Your task to perform on an android device: Show the shopping cart on newegg.com. Add "razer huntsman" to the cart on newegg.com Image 0: 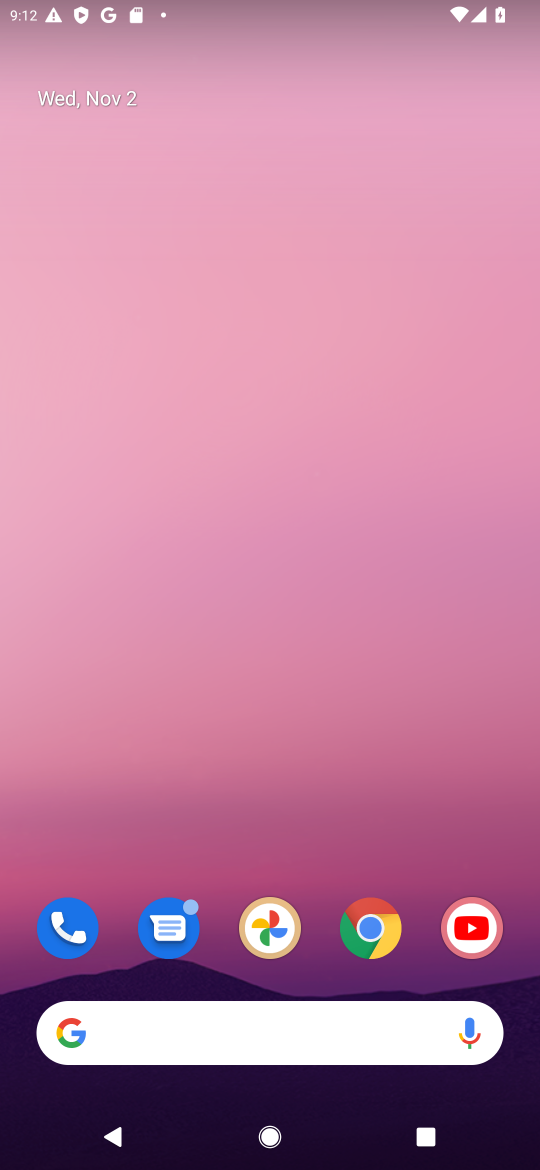
Step 0: click (373, 950)
Your task to perform on an android device: Show the shopping cart on newegg.com. Add "razer huntsman" to the cart on newegg.com Image 1: 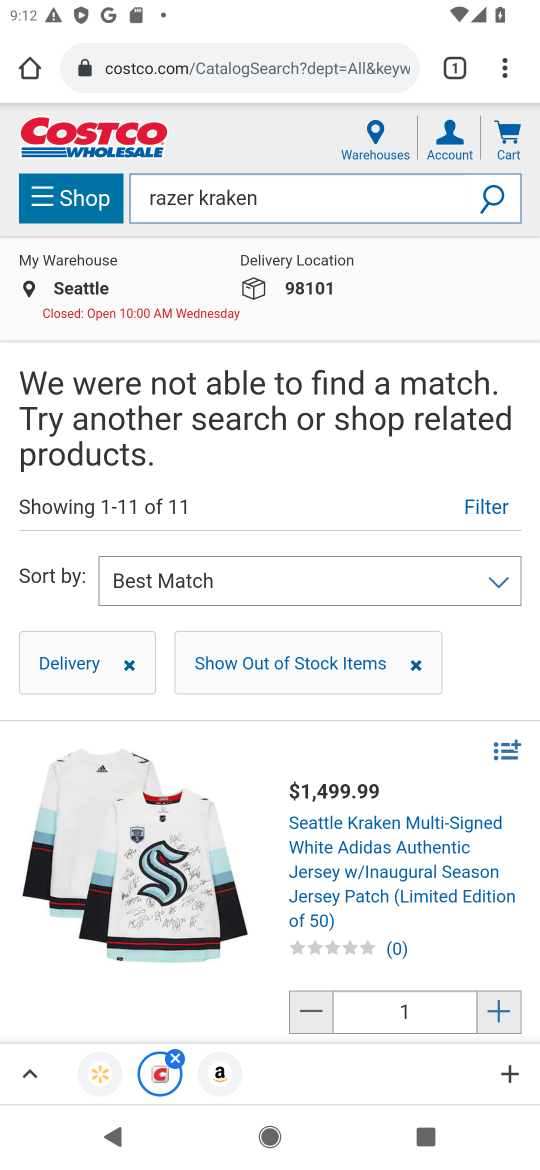
Step 1: click (168, 47)
Your task to perform on an android device: Show the shopping cart on newegg.com. Add "razer huntsman" to the cart on newegg.com Image 2: 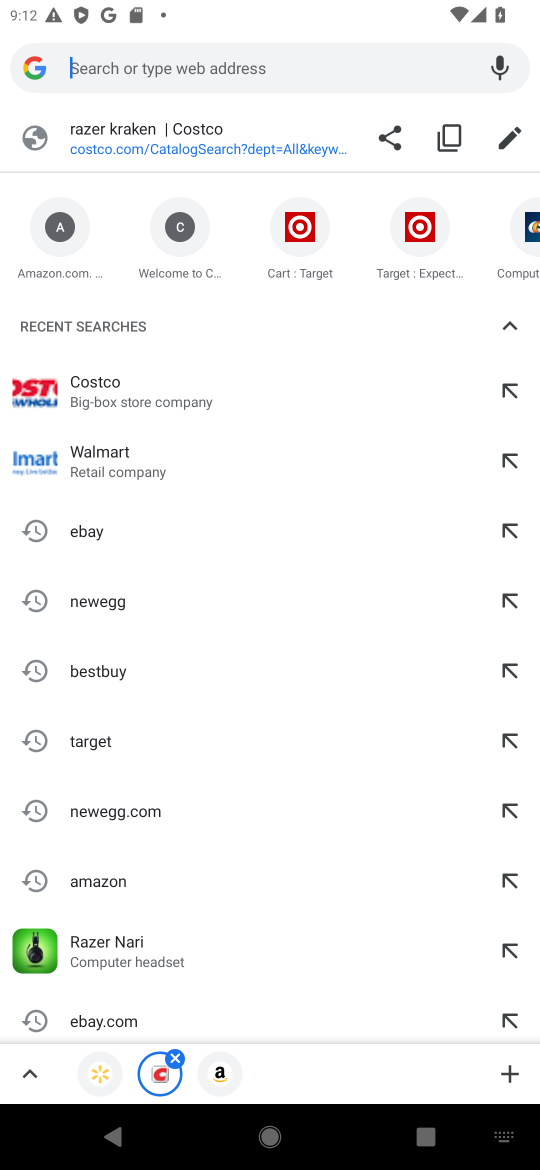
Step 2: click (111, 804)
Your task to perform on an android device: Show the shopping cart on newegg.com. Add "razer huntsman" to the cart on newegg.com Image 3: 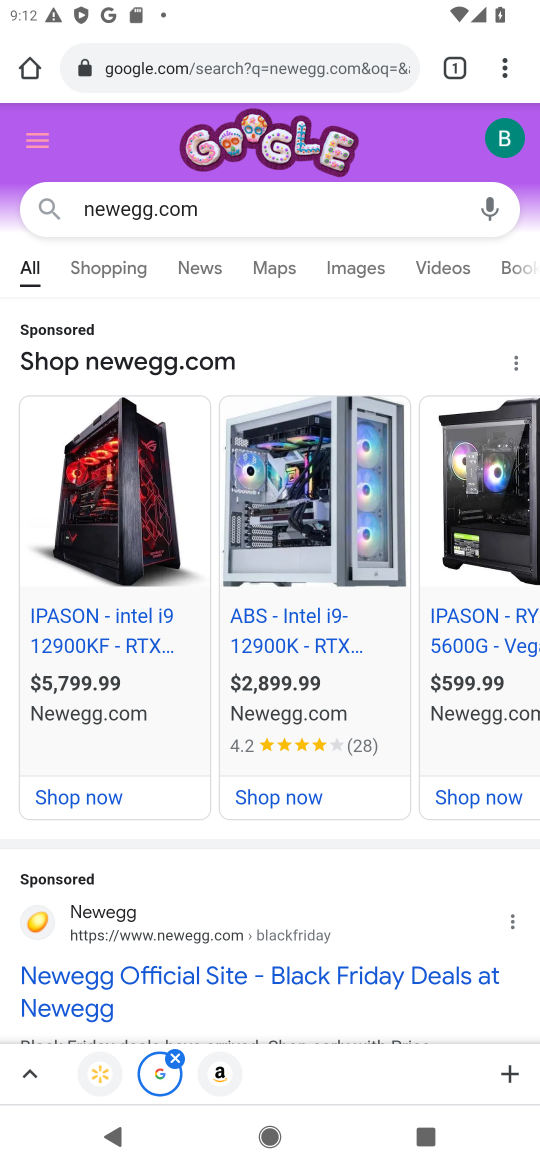
Step 3: click (110, 965)
Your task to perform on an android device: Show the shopping cart on newegg.com. Add "razer huntsman" to the cart on newegg.com Image 4: 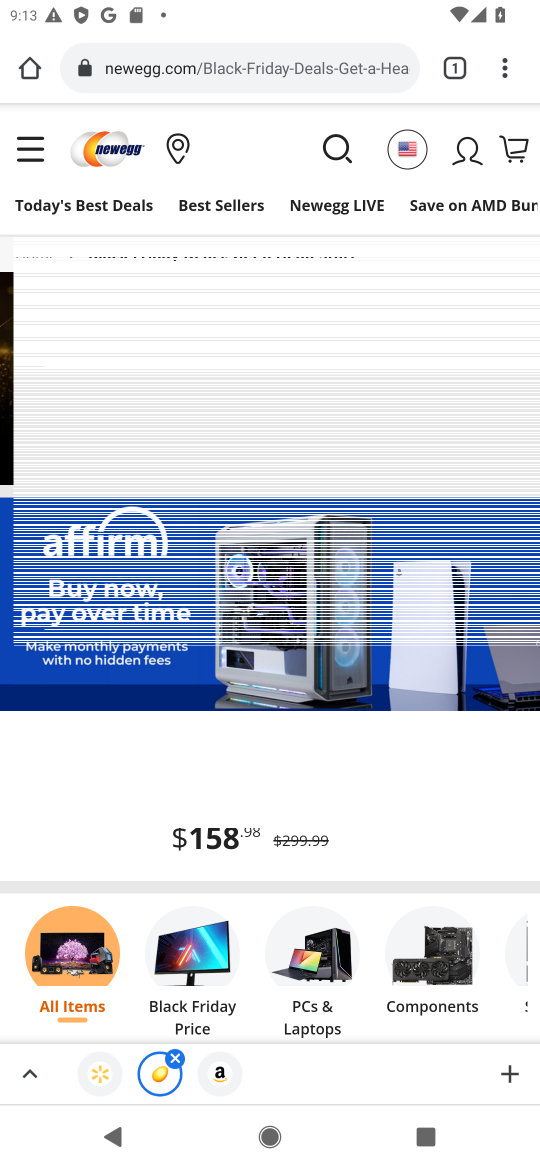
Step 4: click (333, 144)
Your task to perform on an android device: Show the shopping cart on newegg.com. Add "razer huntsman" to the cart on newegg.com Image 5: 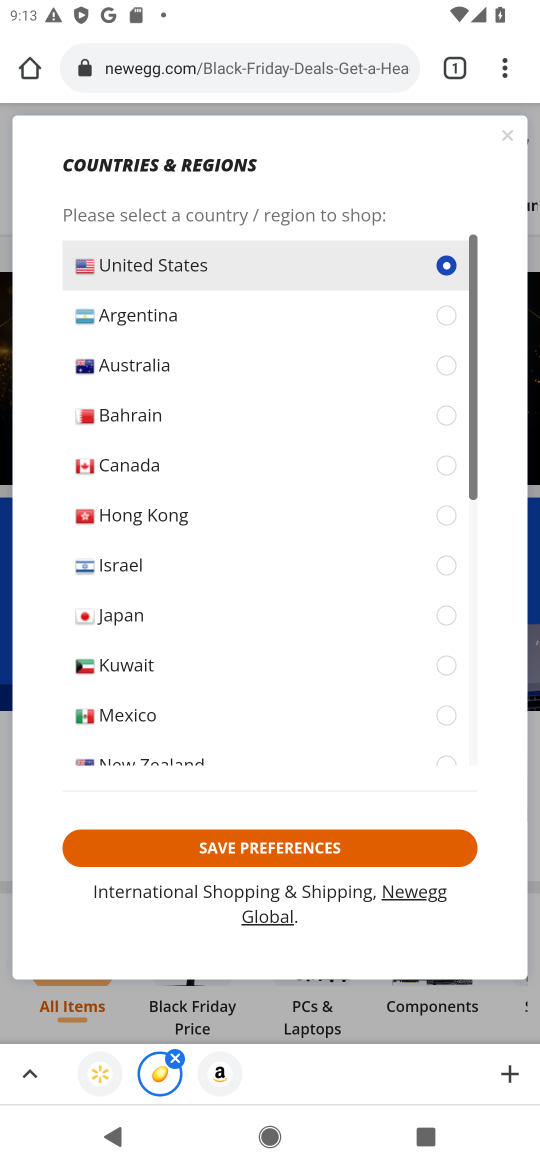
Step 5: click (289, 851)
Your task to perform on an android device: Show the shopping cart on newegg.com. Add "razer huntsman" to the cart on newegg.com Image 6: 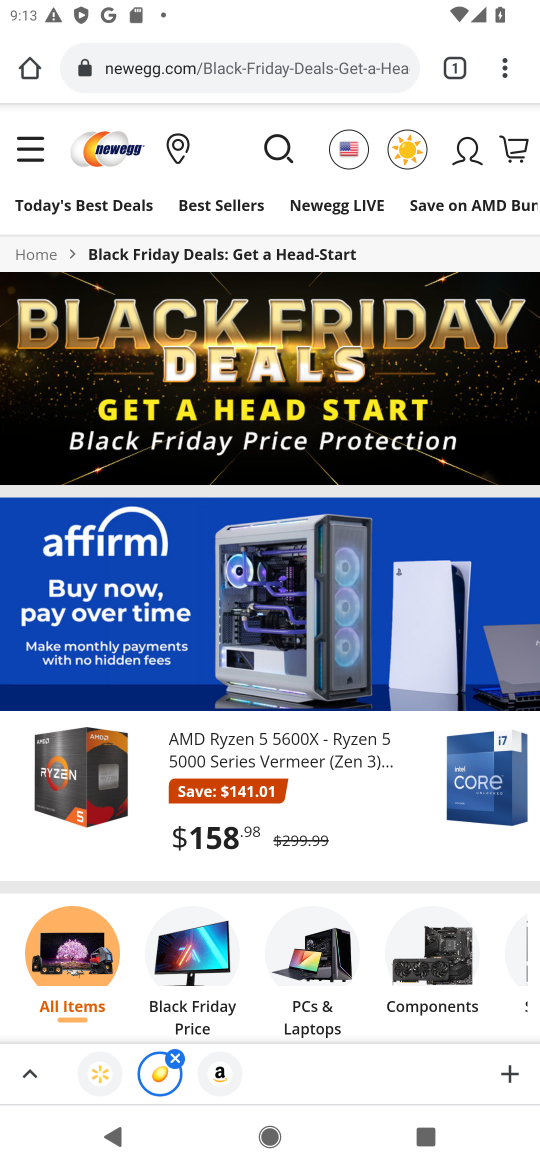
Step 6: click (292, 144)
Your task to perform on an android device: Show the shopping cart on newegg.com. Add "razer huntsman" to the cart on newegg.com Image 7: 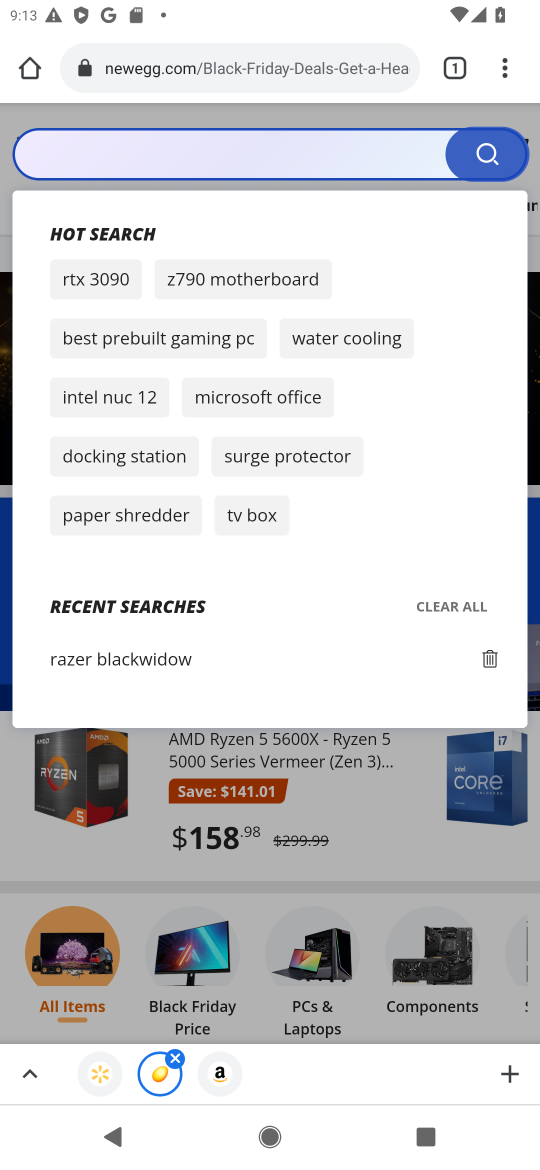
Step 7: click (190, 167)
Your task to perform on an android device: Show the shopping cart on newegg.com. Add "razer huntsman" to the cart on newegg.com Image 8: 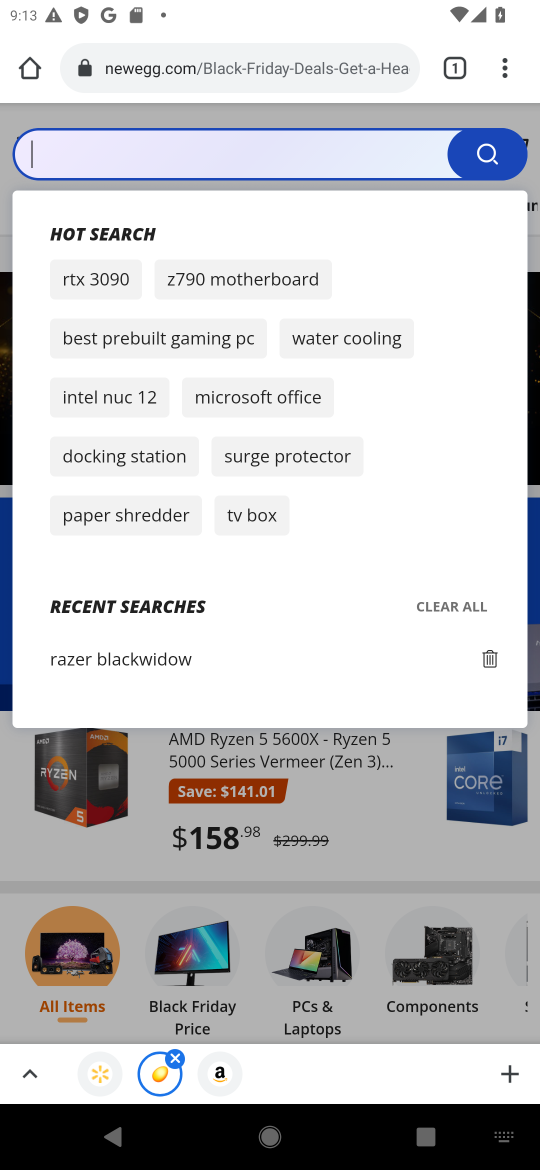
Step 8: type "razer huntsman"
Your task to perform on an android device: Show the shopping cart on newegg.com. Add "razer huntsman" to the cart on newegg.com Image 9: 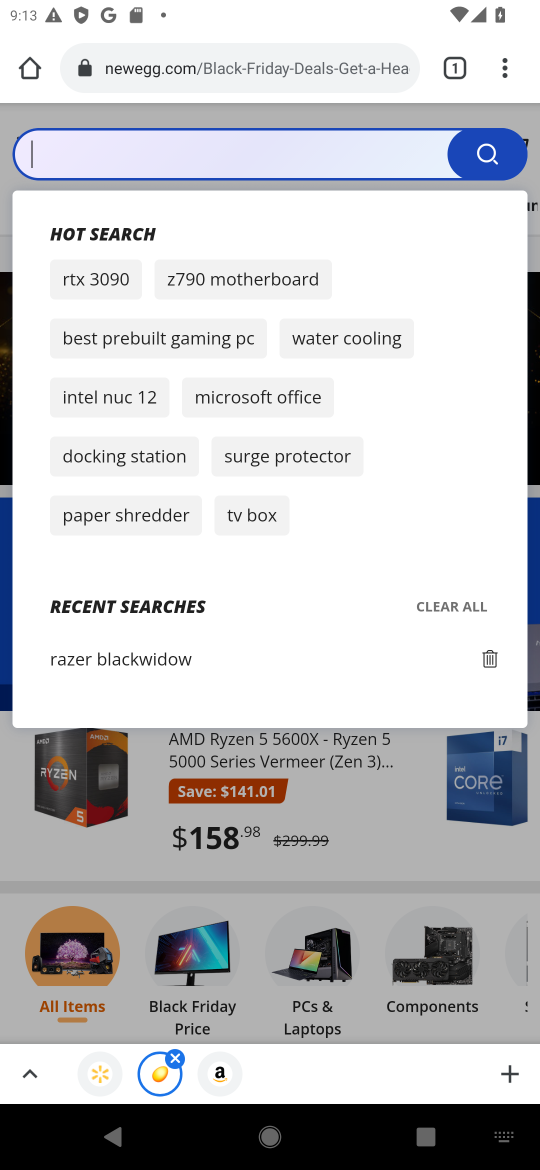
Step 9: type ""
Your task to perform on an android device: Show the shopping cart on newegg.com. Add "razer huntsman" to the cart on newegg.com Image 10: 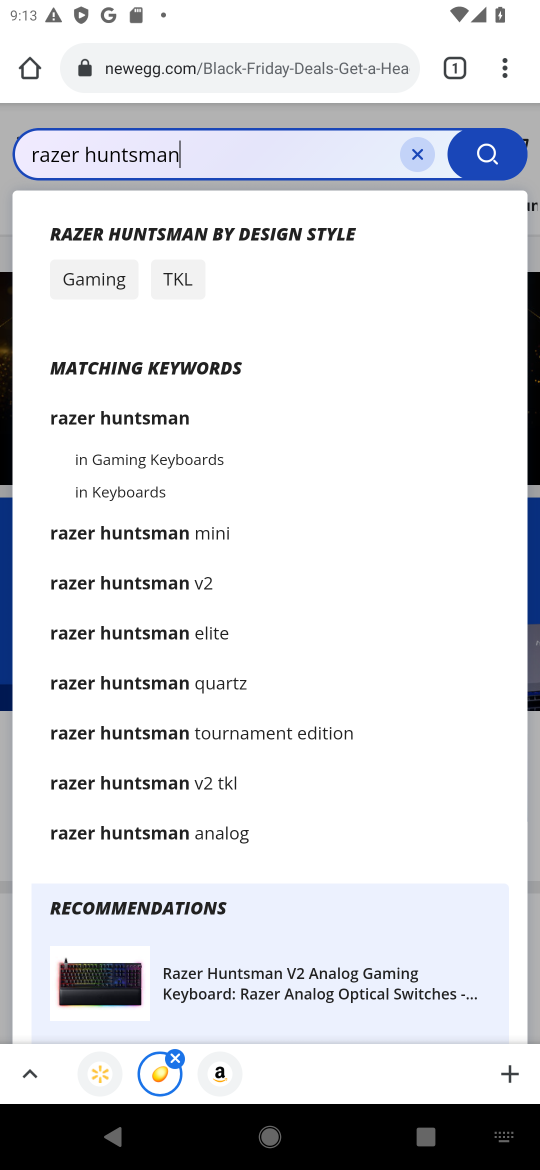
Step 10: click (482, 153)
Your task to perform on an android device: Show the shopping cart on newegg.com. Add "razer huntsman" to the cart on newegg.com Image 11: 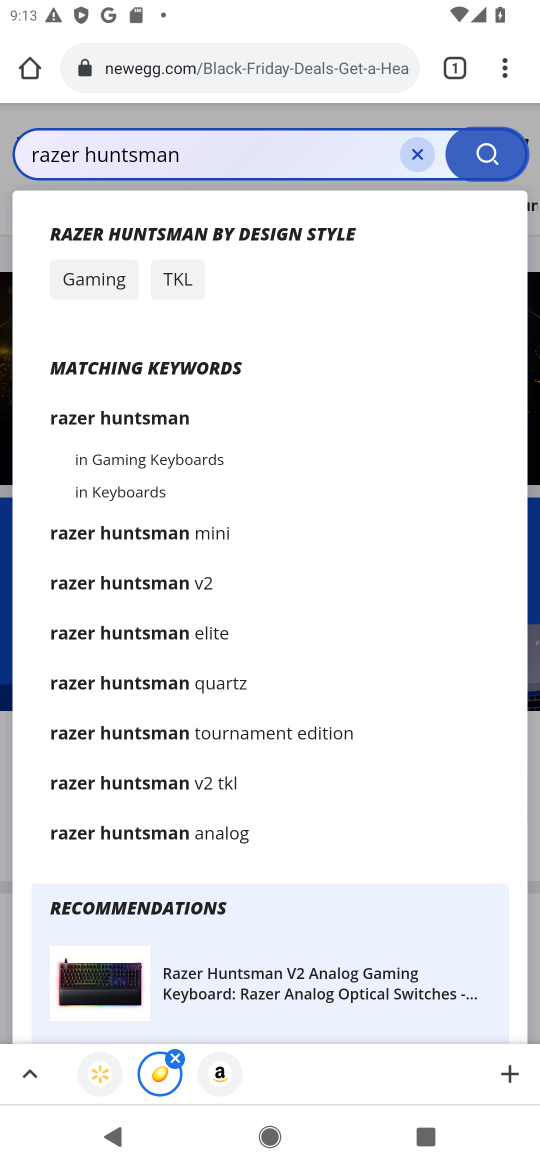
Step 11: click (481, 170)
Your task to perform on an android device: Show the shopping cart on newegg.com. Add "razer huntsman" to the cart on newegg.com Image 12: 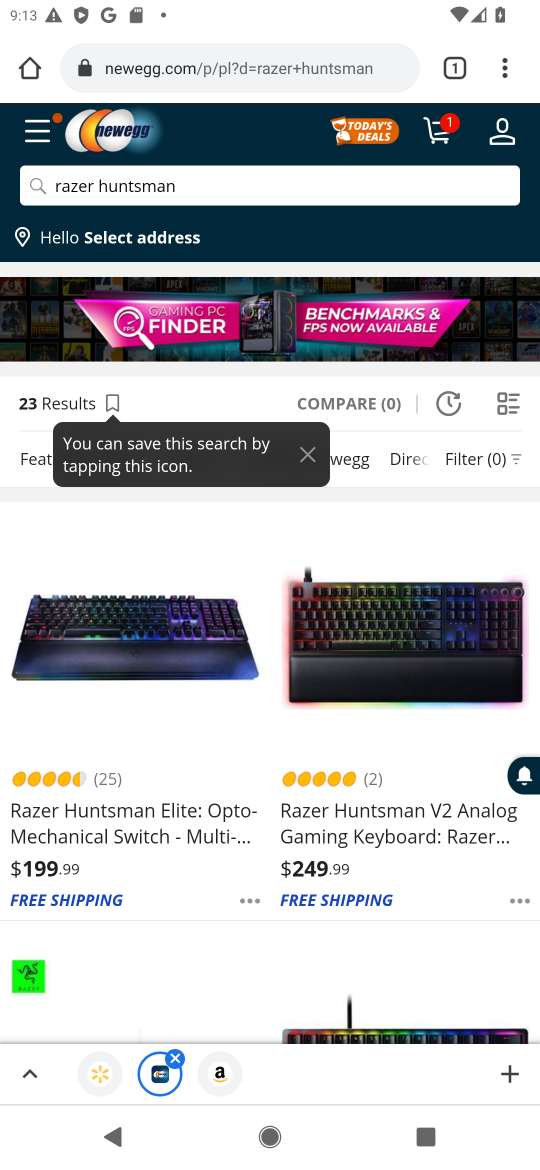
Step 12: click (97, 829)
Your task to perform on an android device: Show the shopping cart on newegg.com. Add "razer huntsman" to the cart on newegg.com Image 13: 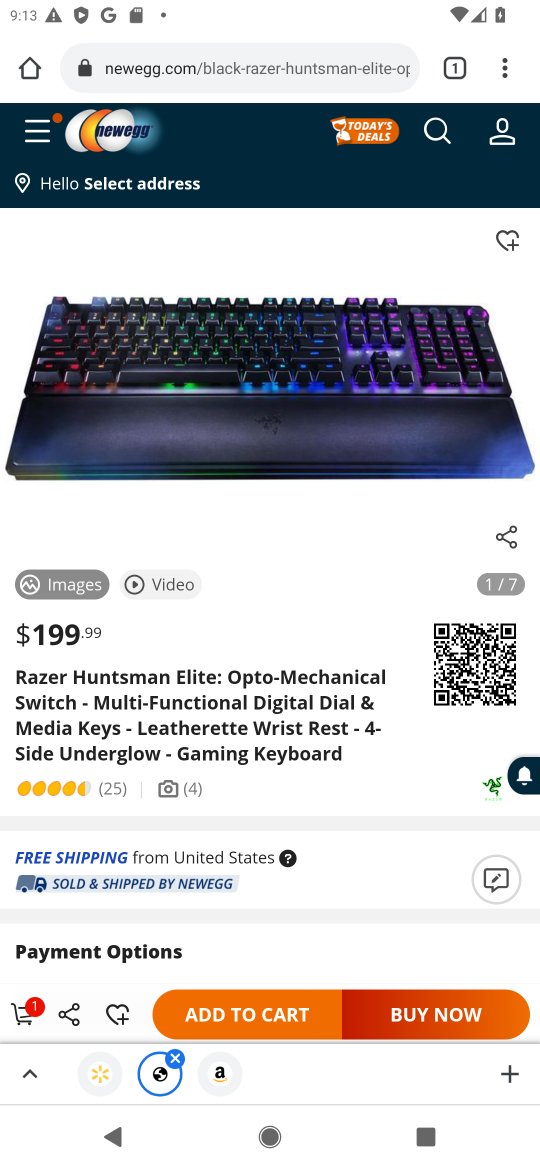
Step 13: click (205, 1015)
Your task to perform on an android device: Show the shopping cart on newegg.com. Add "razer huntsman" to the cart on newegg.com Image 14: 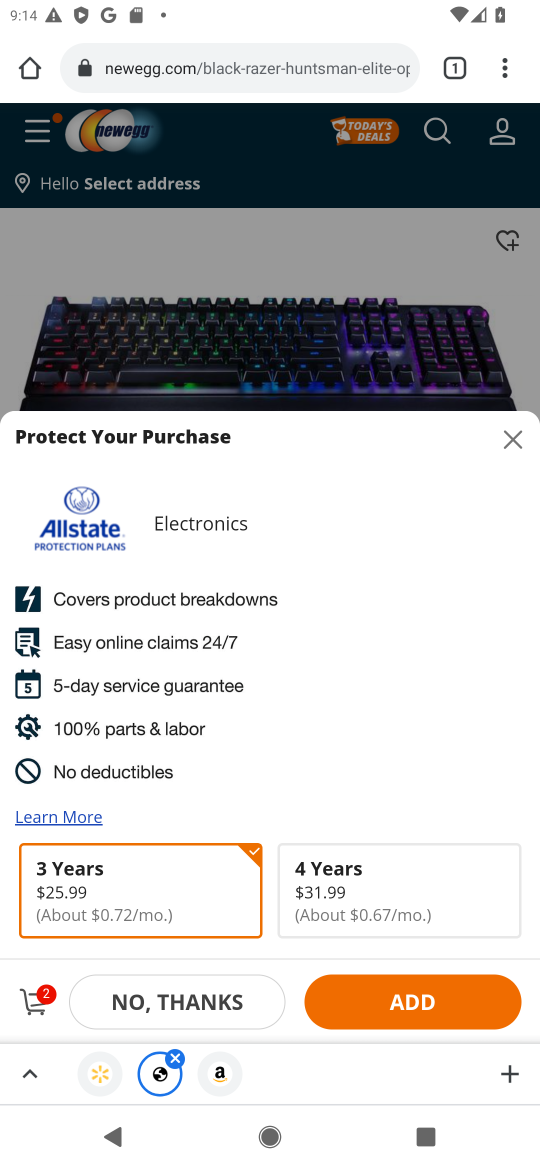
Step 14: click (234, 999)
Your task to perform on an android device: Show the shopping cart on newegg.com. Add "razer huntsman" to the cart on newegg.com Image 15: 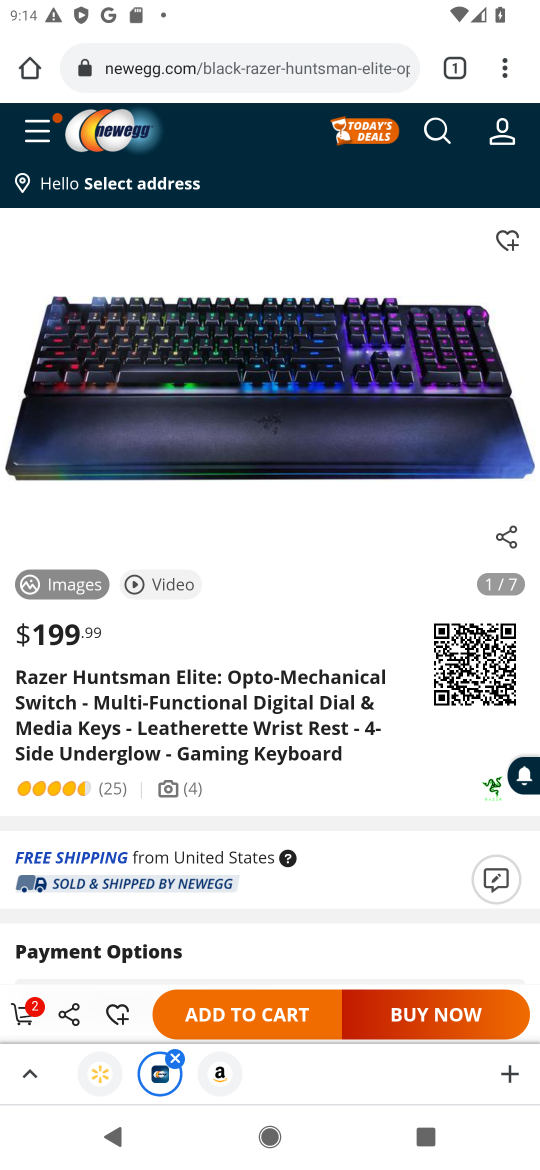
Step 15: click (28, 1024)
Your task to perform on an android device: Show the shopping cart on newegg.com. Add "razer huntsman" to the cart on newegg.com Image 16: 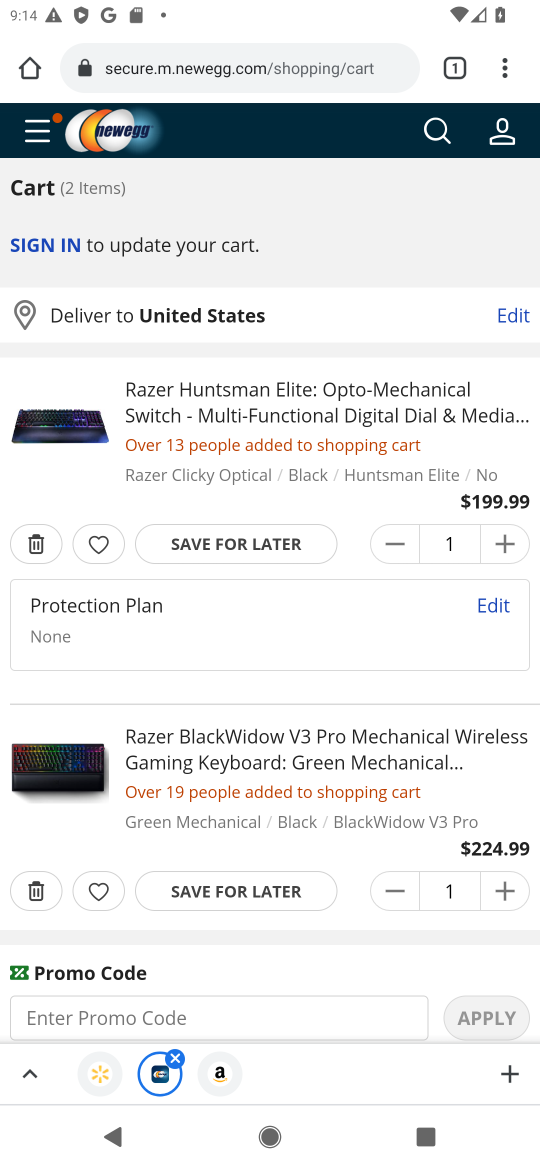
Step 16: drag from (124, 853) to (235, 319)
Your task to perform on an android device: Show the shopping cart on newegg.com. Add "razer huntsman" to the cart on newegg.com Image 17: 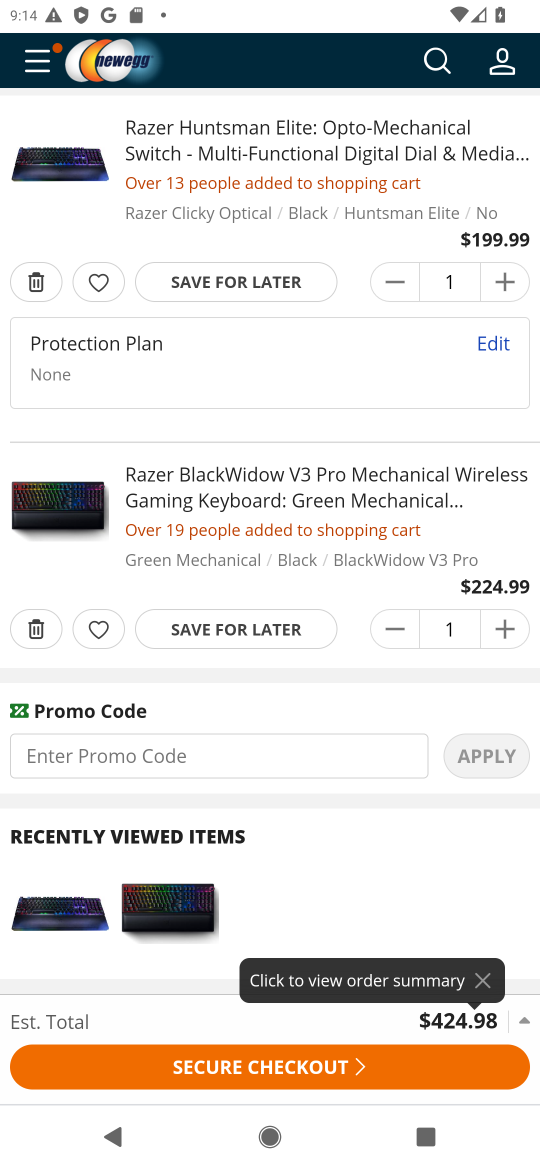
Step 17: click (174, 1056)
Your task to perform on an android device: Show the shopping cart on newegg.com. Add "razer huntsman" to the cart on newegg.com Image 18: 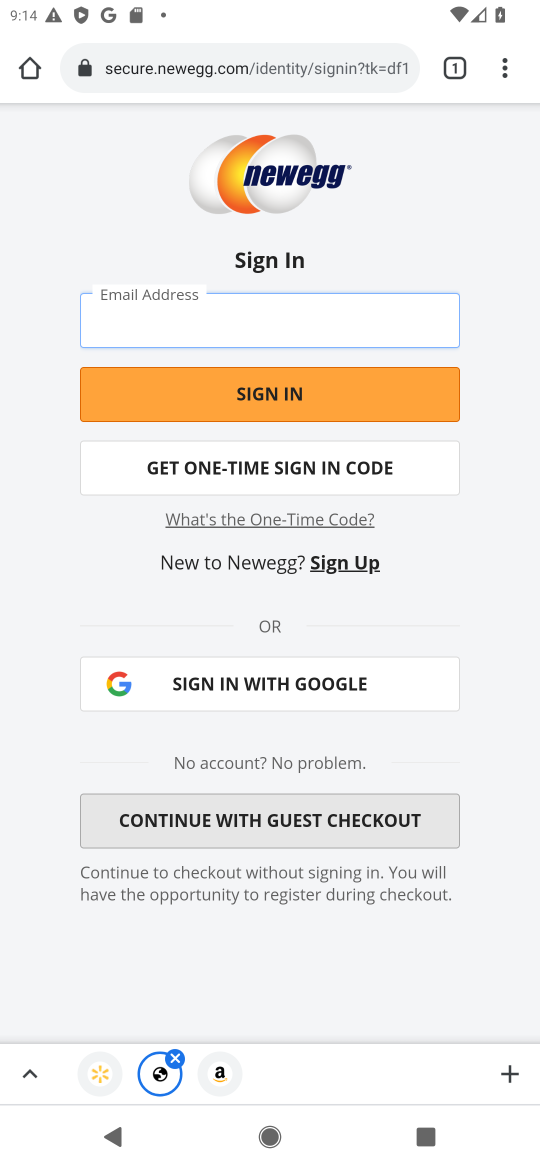
Step 18: click (239, 796)
Your task to perform on an android device: Show the shopping cart on newegg.com. Add "razer huntsman" to the cart on newegg.com Image 19: 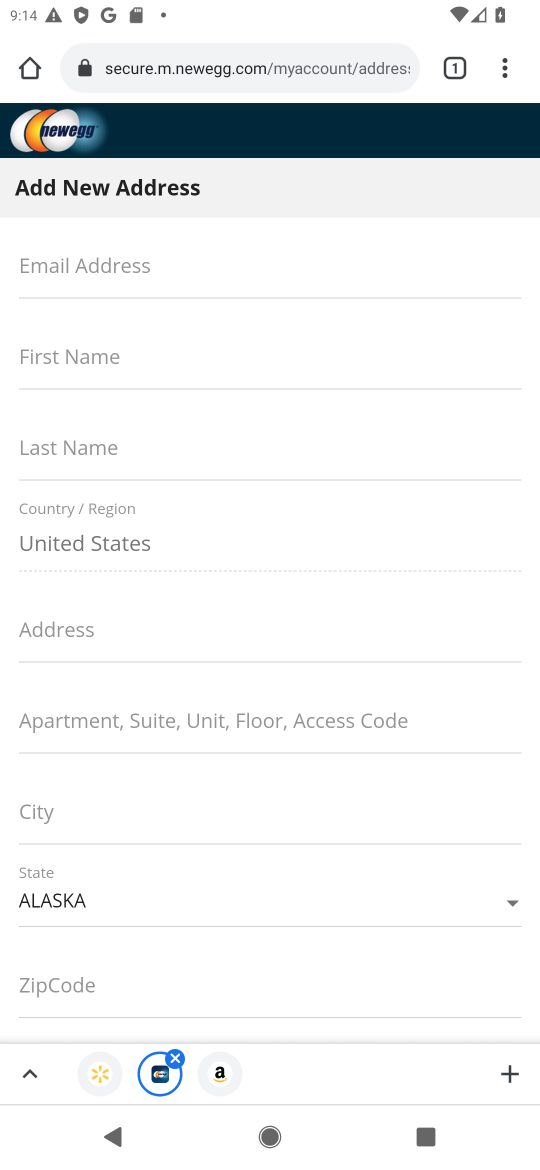
Step 19: task complete